Your task to perform on an android device: turn off picture-in-picture Image 0: 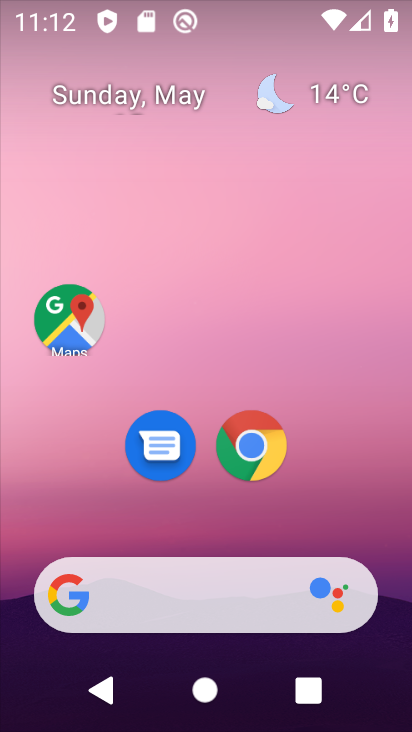
Step 0: click (253, 453)
Your task to perform on an android device: turn off picture-in-picture Image 1: 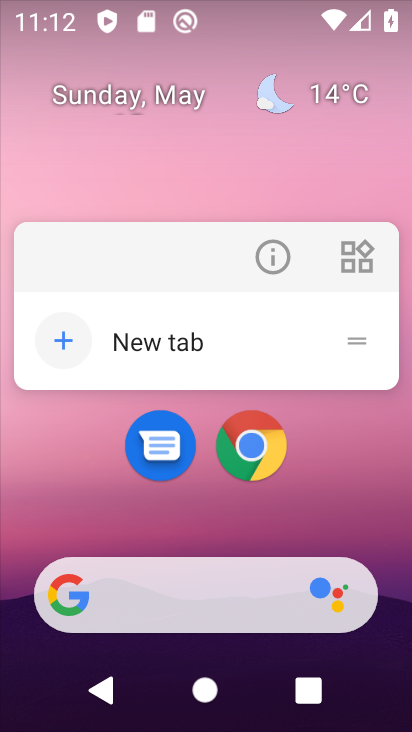
Step 1: drag from (253, 455) to (265, 419)
Your task to perform on an android device: turn off picture-in-picture Image 2: 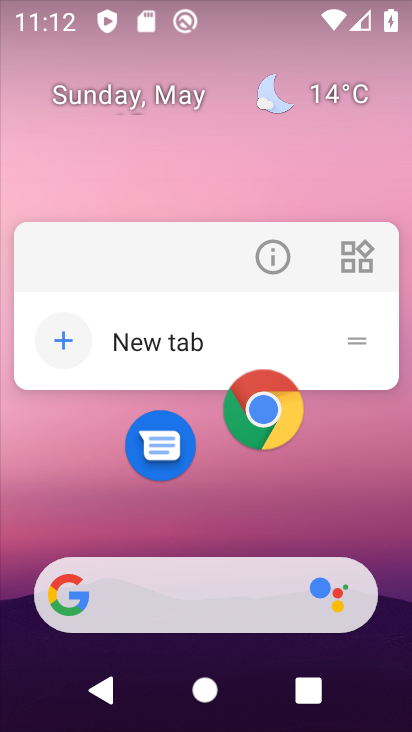
Step 2: click (275, 264)
Your task to perform on an android device: turn off picture-in-picture Image 3: 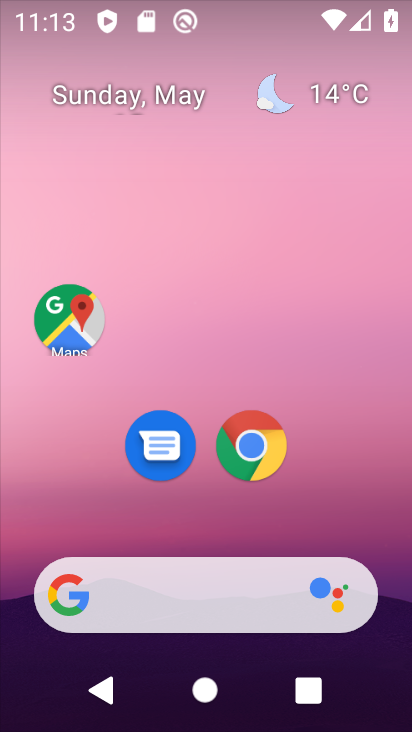
Step 3: drag from (246, 427) to (273, 372)
Your task to perform on an android device: turn off picture-in-picture Image 4: 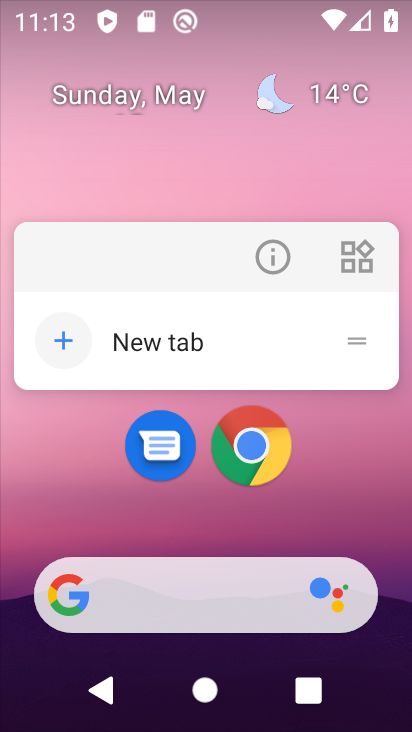
Step 4: click (272, 259)
Your task to perform on an android device: turn off picture-in-picture Image 5: 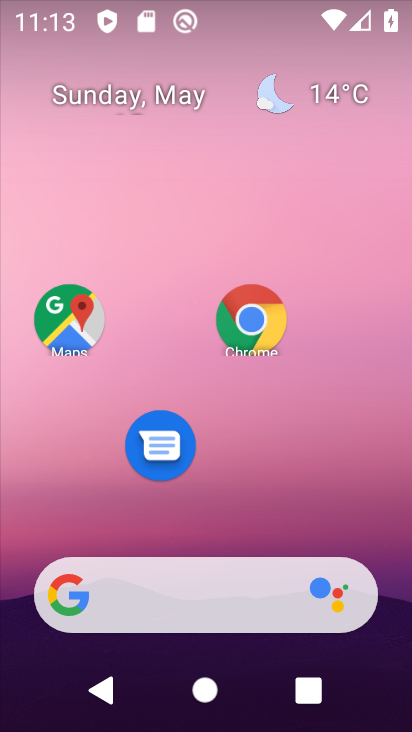
Step 5: click (261, 309)
Your task to perform on an android device: turn off picture-in-picture Image 6: 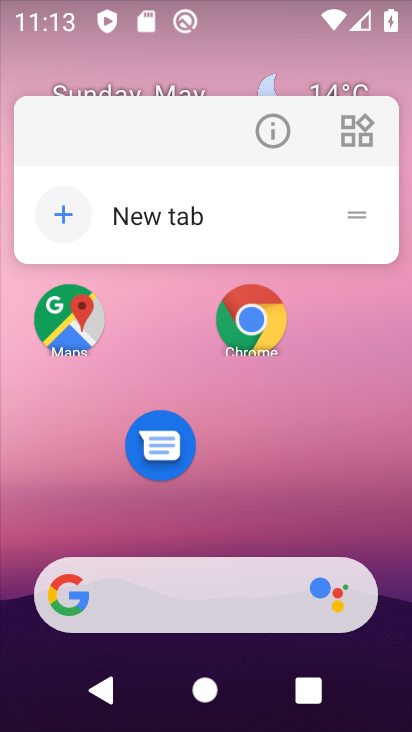
Step 6: click (277, 138)
Your task to perform on an android device: turn off picture-in-picture Image 7: 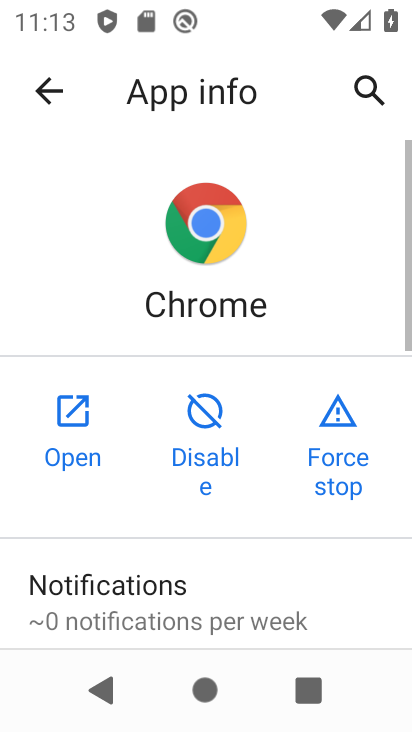
Step 7: drag from (153, 604) to (339, 41)
Your task to perform on an android device: turn off picture-in-picture Image 8: 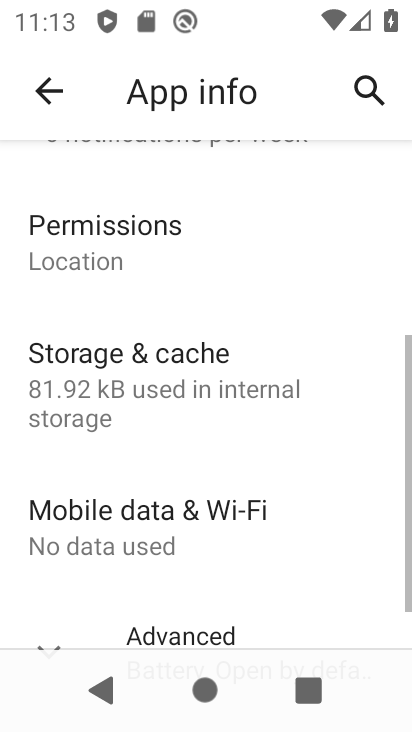
Step 8: drag from (143, 614) to (331, 136)
Your task to perform on an android device: turn off picture-in-picture Image 9: 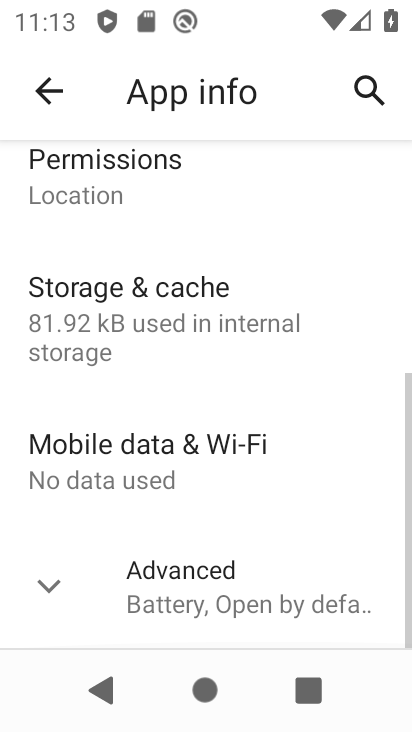
Step 9: click (164, 588)
Your task to perform on an android device: turn off picture-in-picture Image 10: 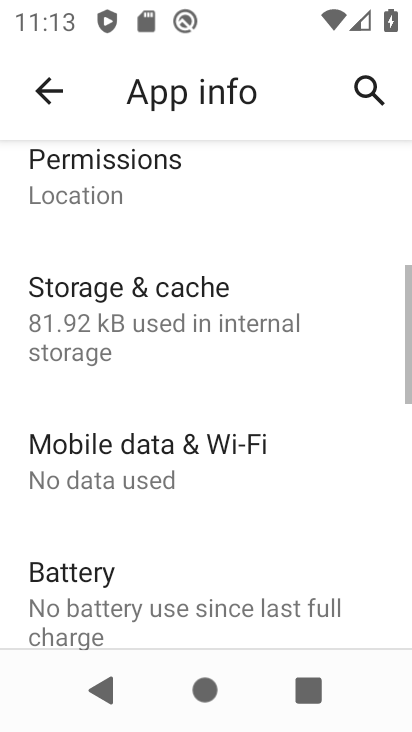
Step 10: drag from (143, 622) to (324, 85)
Your task to perform on an android device: turn off picture-in-picture Image 11: 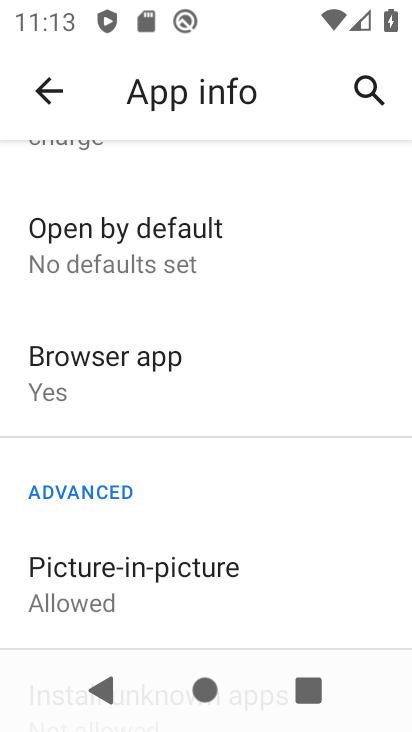
Step 11: click (162, 579)
Your task to perform on an android device: turn off picture-in-picture Image 12: 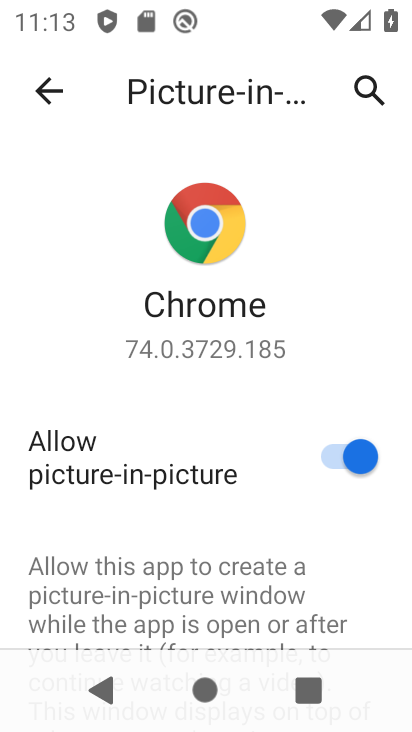
Step 12: click (348, 456)
Your task to perform on an android device: turn off picture-in-picture Image 13: 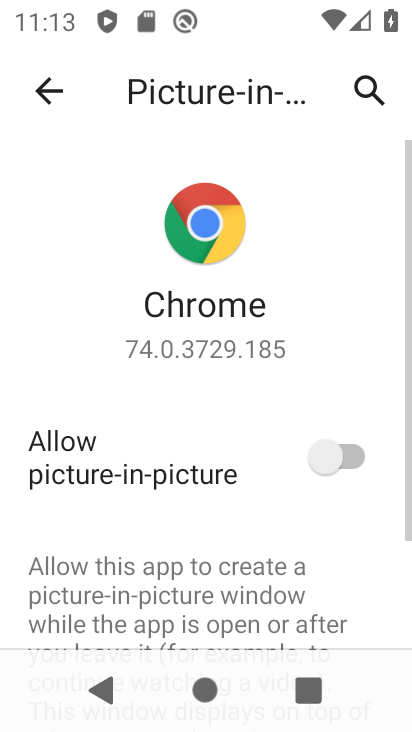
Step 13: task complete